Your task to perform on an android device: What is the recent news? Image 0: 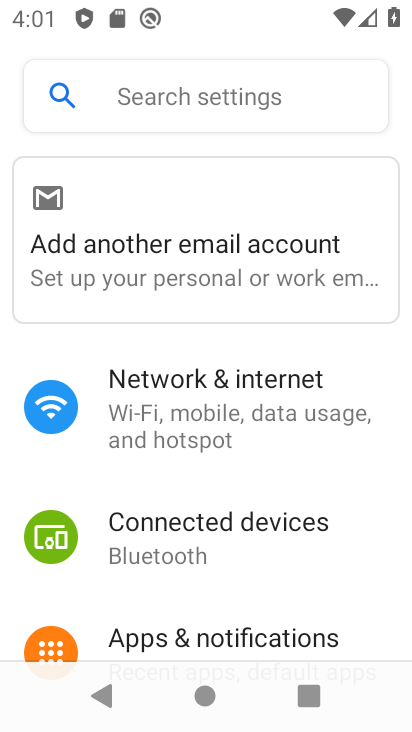
Step 0: press home button
Your task to perform on an android device: What is the recent news? Image 1: 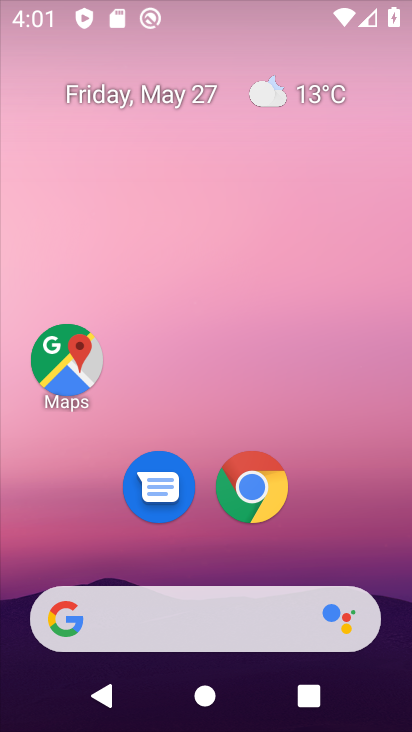
Step 1: drag from (149, 726) to (108, 19)
Your task to perform on an android device: What is the recent news? Image 2: 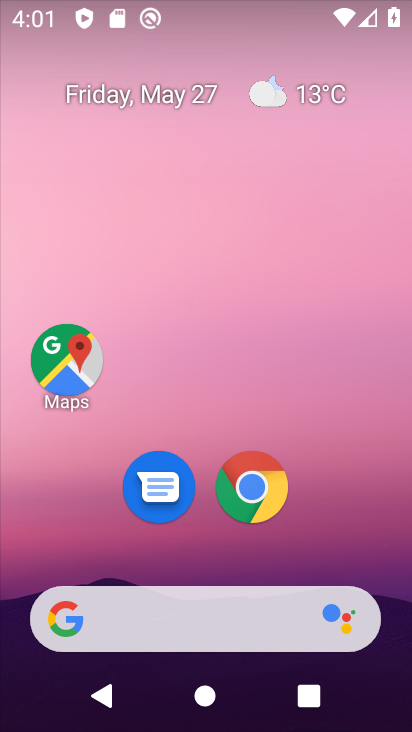
Step 2: click (217, 607)
Your task to perform on an android device: What is the recent news? Image 3: 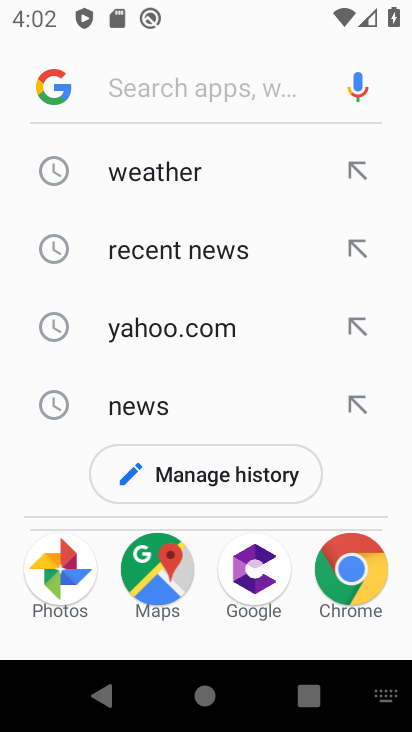
Step 3: click (213, 260)
Your task to perform on an android device: What is the recent news? Image 4: 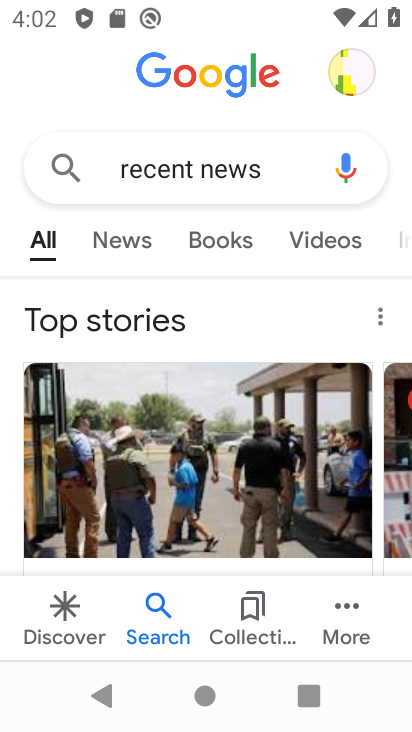
Step 4: task complete